Your task to perform on an android device: make emails show in primary in the gmail app Image 0: 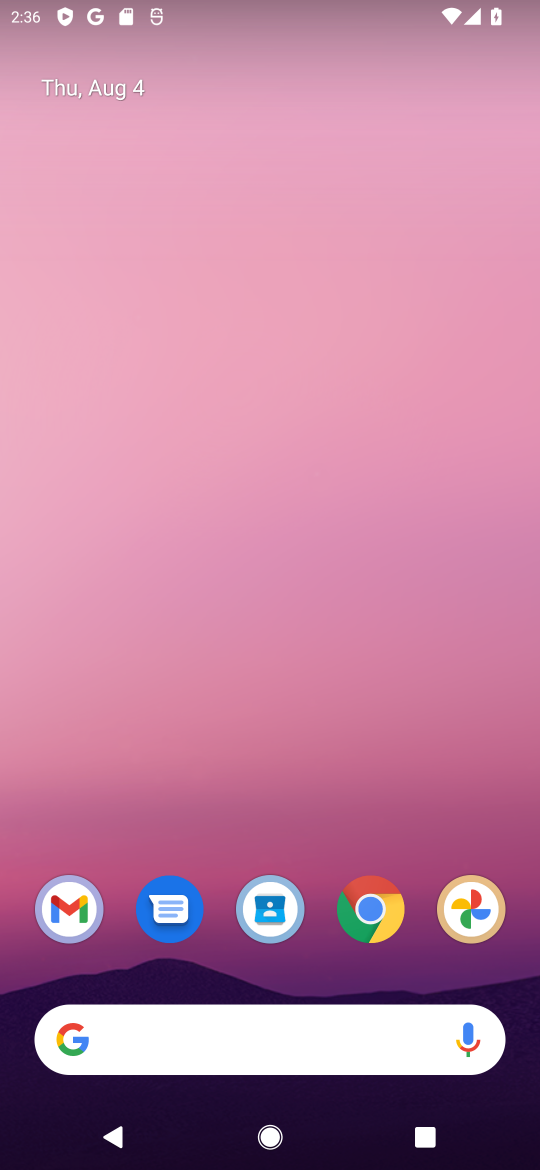
Step 0: drag from (308, 1040) to (481, 117)
Your task to perform on an android device: make emails show in primary in the gmail app Image 1: 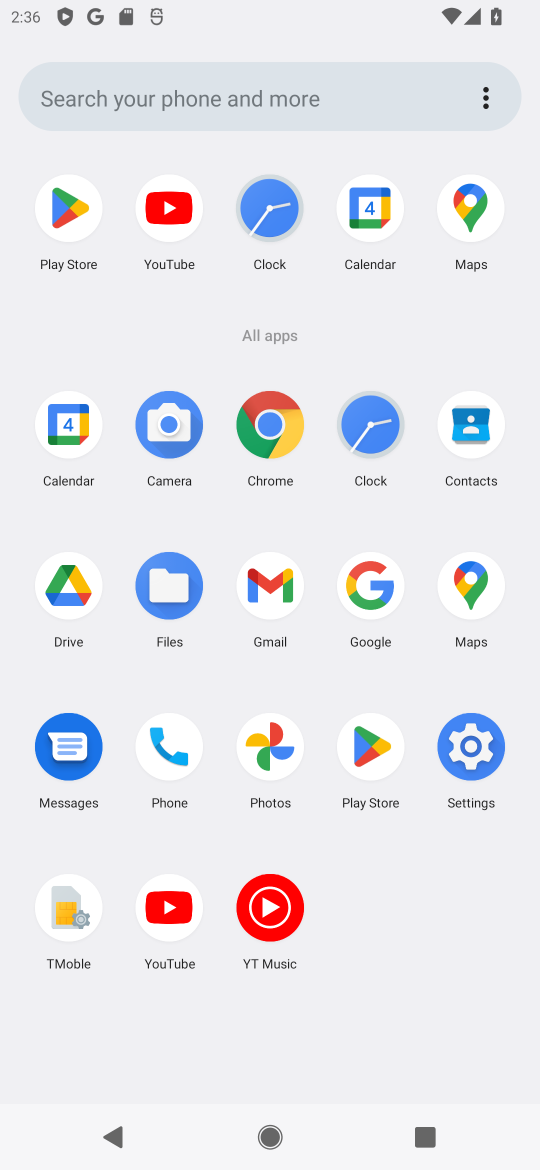
Step 1: click (275, 587)
Your task to perform on an android device: make emails show in primary in the gmail app Image 2: 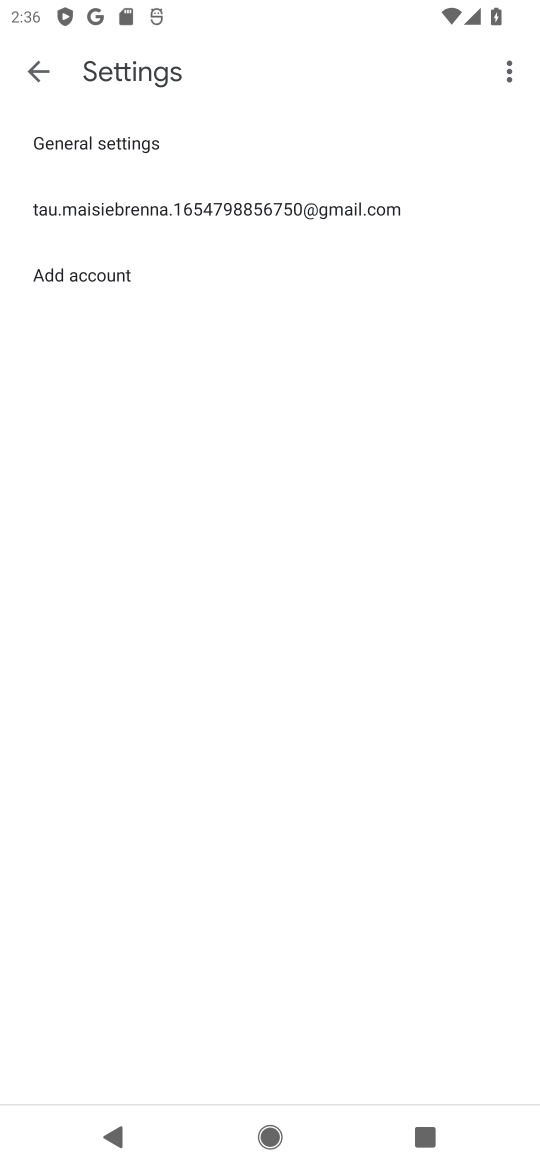
Step 2: click (186, 209)
Your task to perform on an android device: make emails show in primary in the gmail app Image 3: 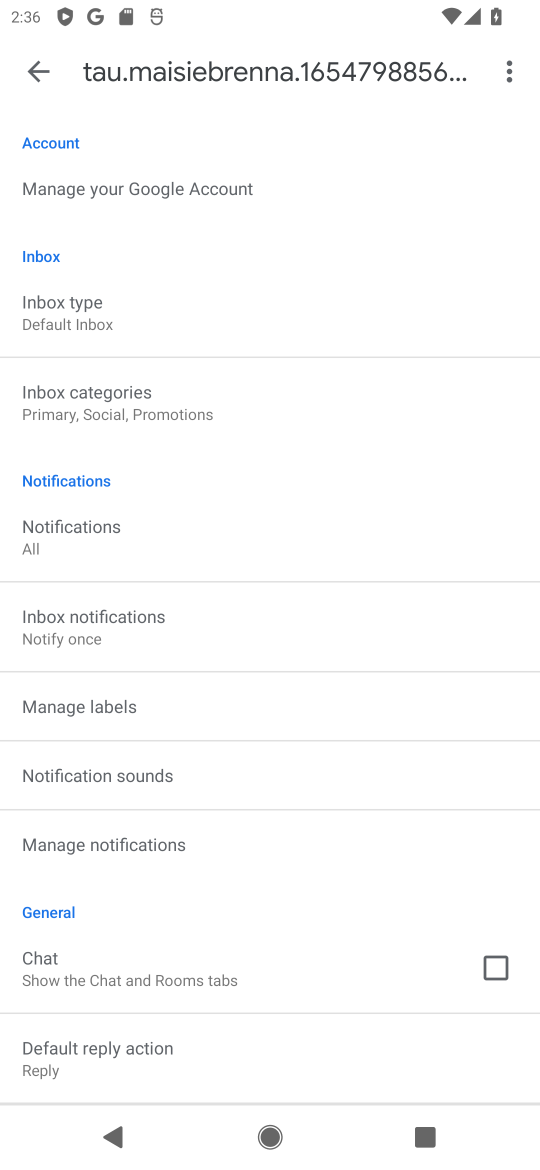
Step 3: click (140, 402)
Your task to perform on an android device: make emails show in primary in the gmail app Image 4: 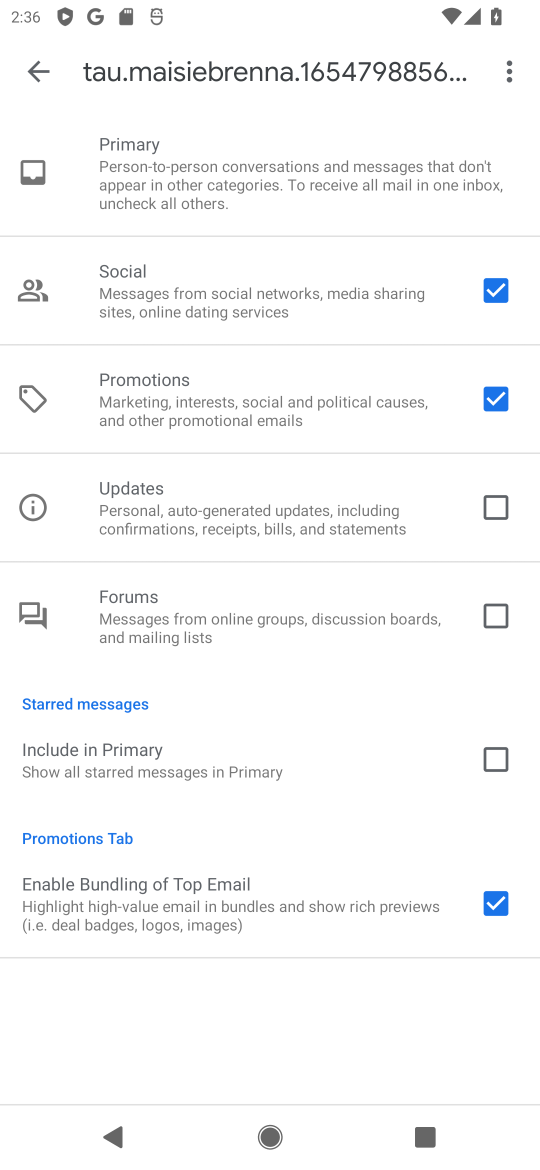
Step 4: click (499, 286)
Your task to perform on an android device: make emails show in primary in the gmail app Image 5: 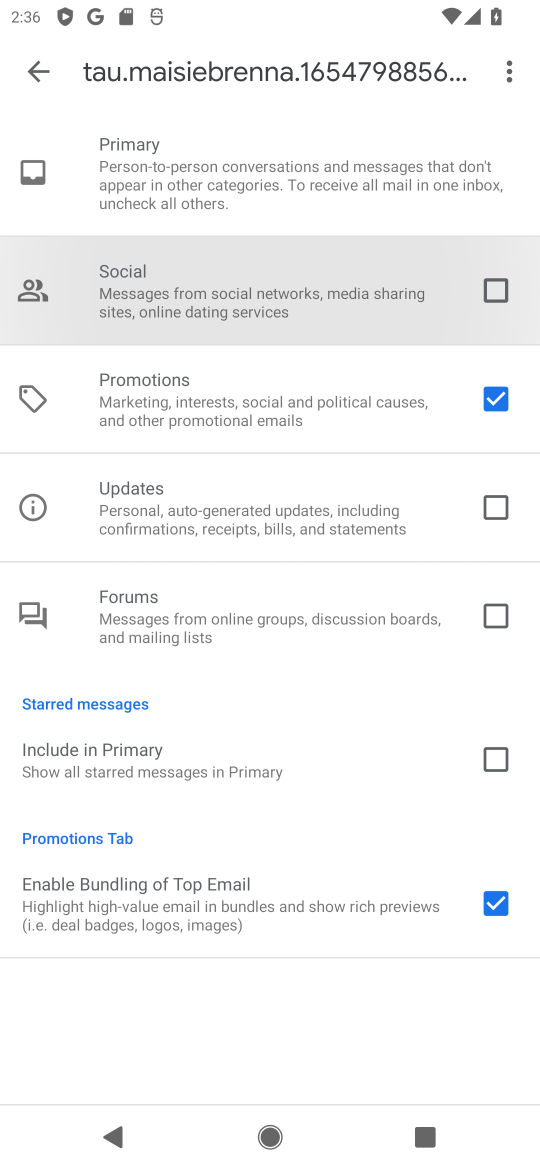
Step 5: click (496, 396)
Your task to perform on an android device: make emails show in primary in the gmail app Image 6: 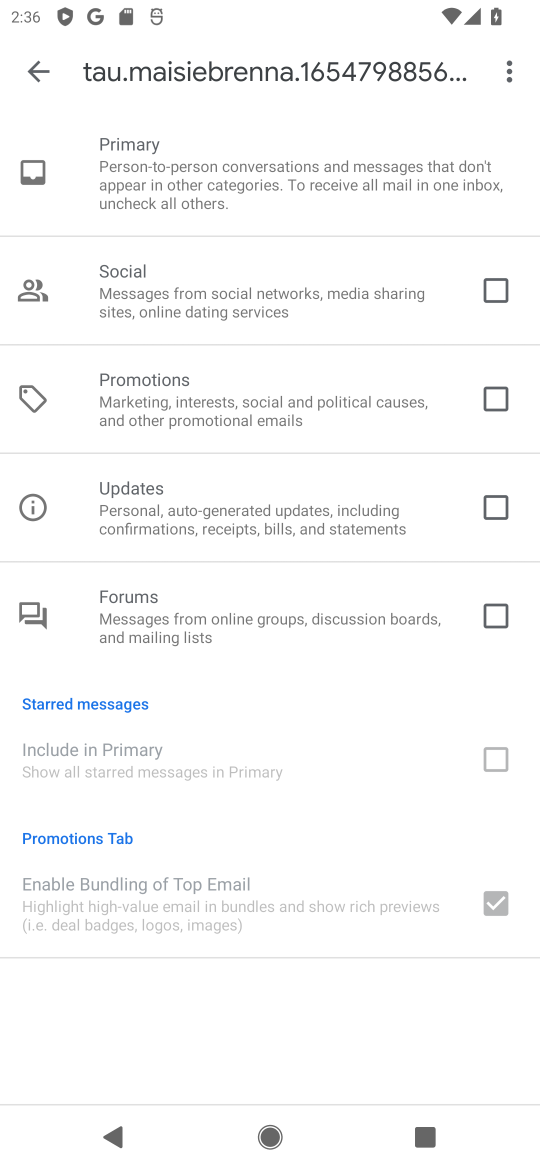
Step 6: click (44, 69)
Your task to perform on an android device: make emails show in primary in the gmail app Image 7: 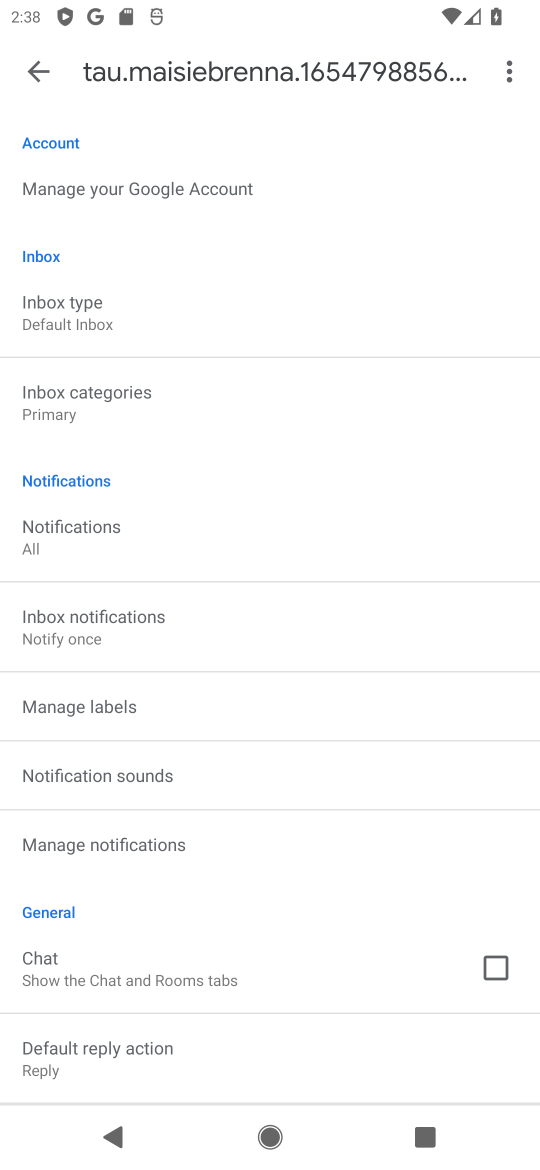
Step 7: task complete